Your task to perform on an android device: Go to Wikipedia Image 0: 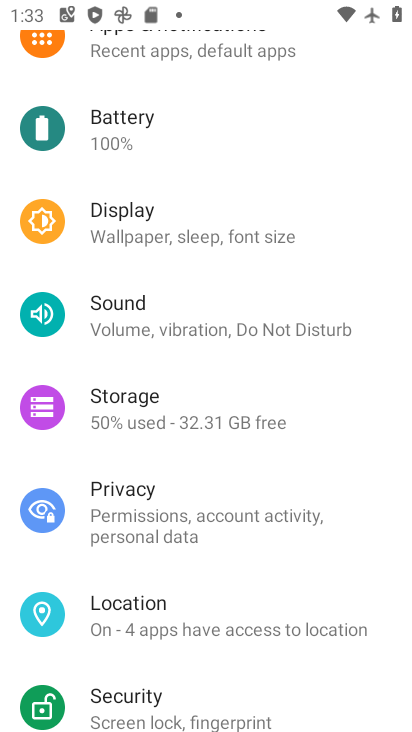
Step 0: press home button
Your task to perform on an android device: Go to Wikipedia Image 1: 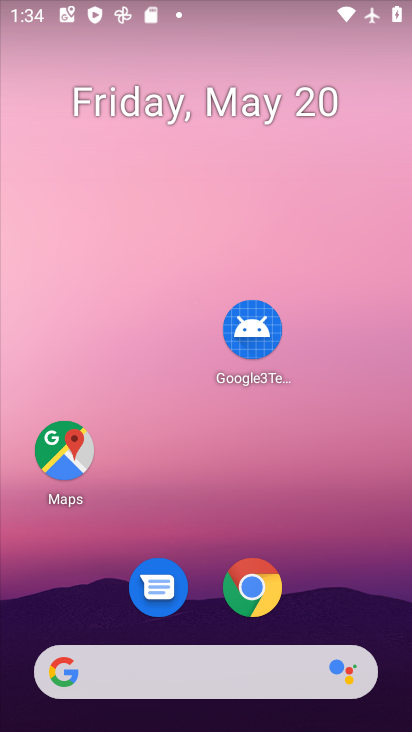
Step 1: click (253, 582)
Your task to perform on an android device: Go to Wikipedia Image 2: 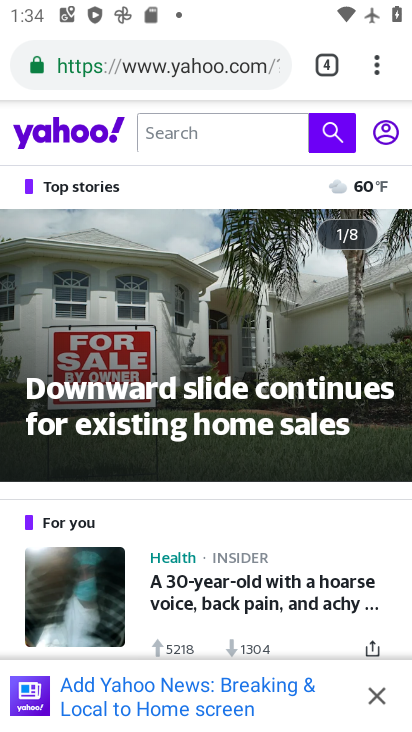
Step 2: click (376, 60)
Your task to perform on an android device: Go to Wikipedia Image 3: 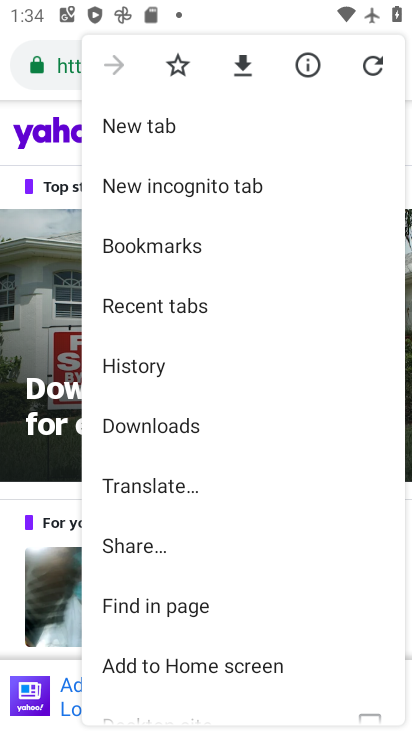
Step 3: click (168, 124)
Your task to perform on an android device: Go to Wikipedia Image 4: 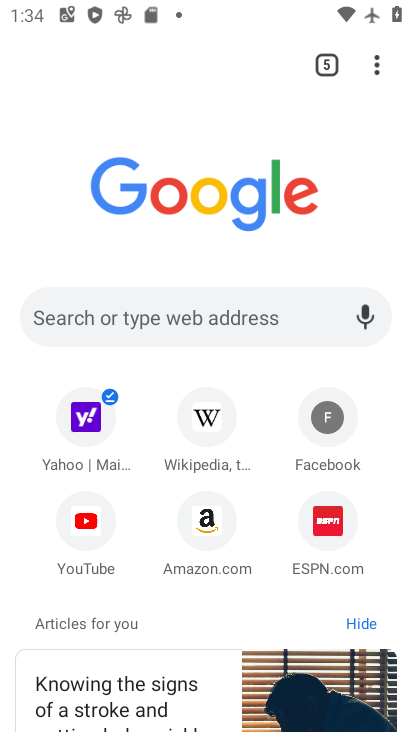
Step 4: click (209, 423)
Your task to perform on an android device: Go to Wikipedia Image 5: 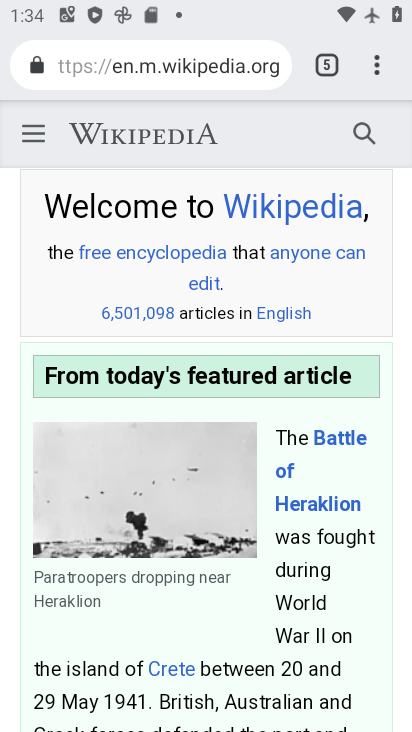
Step 5: task complete